Your task to perform on an android device: set the timer Image 0: 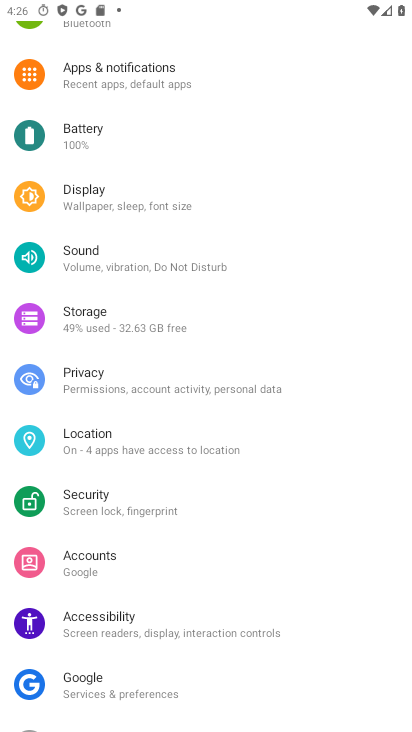
Step 0: press home button
Your task to perform on an android device: set the timer Image 1: 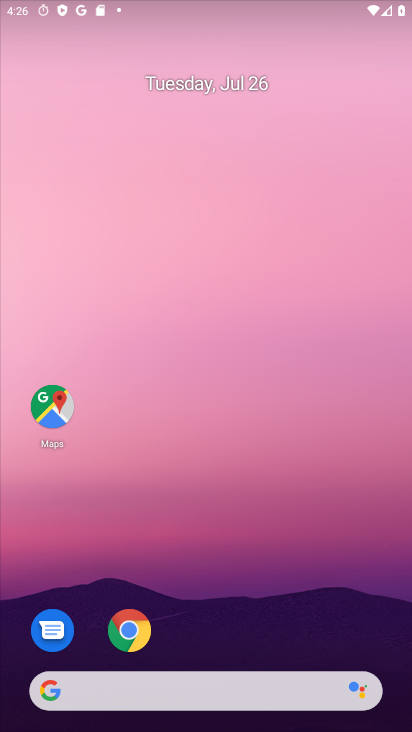
Step 1: drag from (274, 645) to (223, 108)
Your task to perform on an android device: set the timer Image 2: 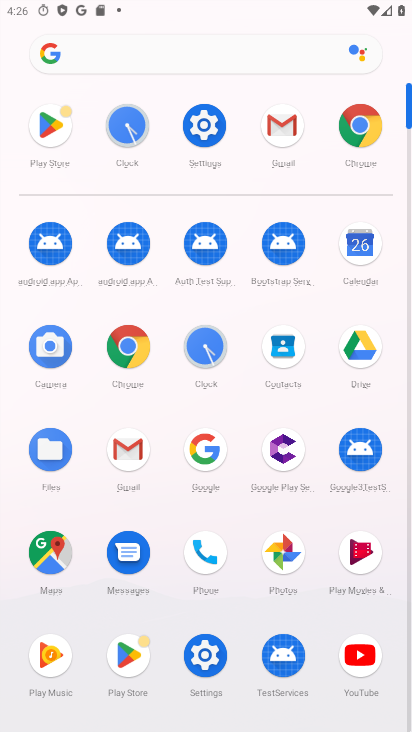
Step 2: click (217, 352)
Your task to perform on an android device: set the timer Image 3: 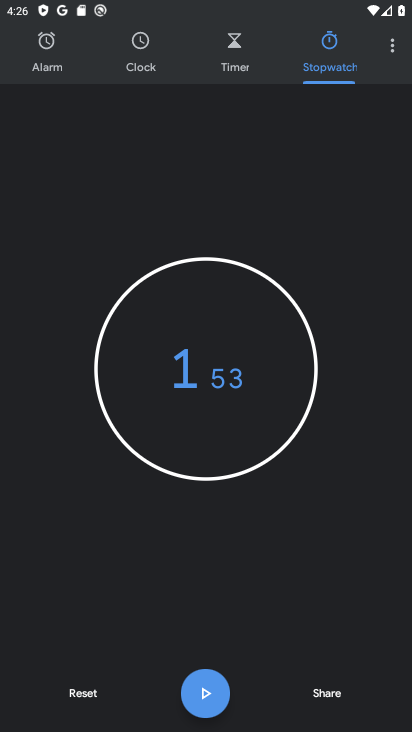
Step 3: click (244, 40)
Your task to perform on an android device: set the timer Image 4: 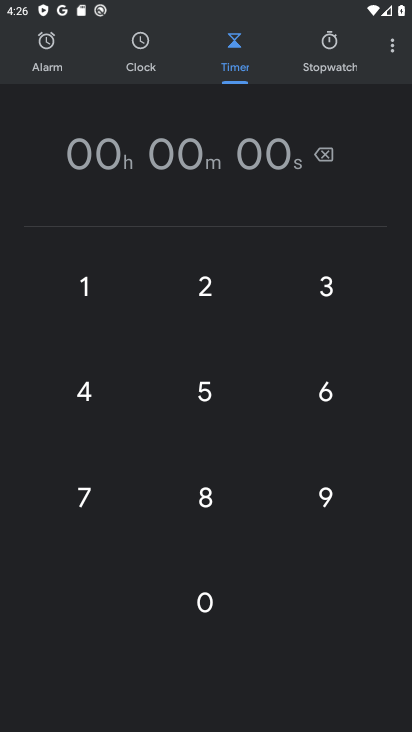
Step 4: click (208, 412)
Your task to perform on an android device: set the timer Image 5: 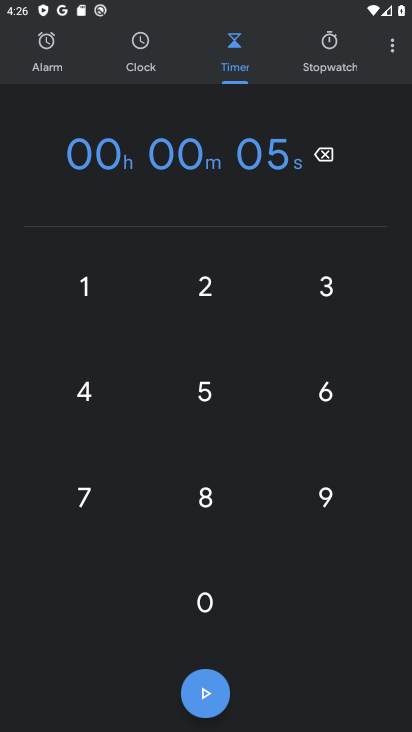
Step 5: task complete